Your task to perform on an android device: Open Wikipedia Image 0: 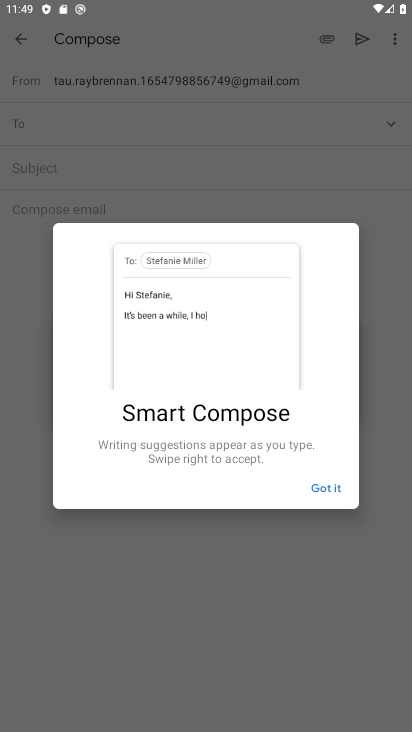
Step 0: press home button
Your task to perform on an android device: Open Wikipedia Image 1: 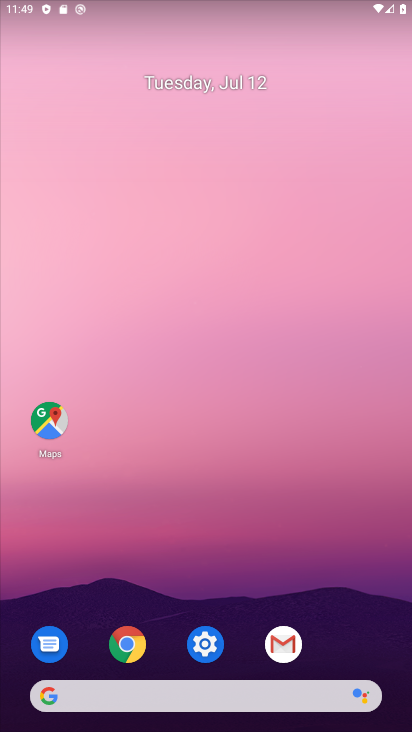
Step 1: click (109, 643)
Your task to perform on an android device: Open Wikipedia Image 2: 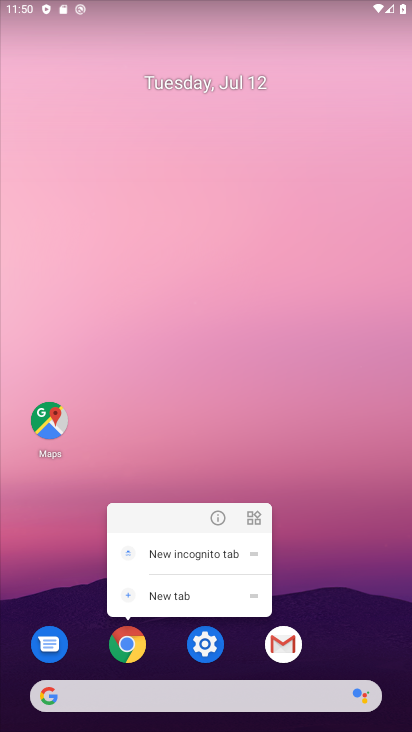
Step 2: click (119, 657)
Your task to perform on an android device: Open Wikipedia Image 3: 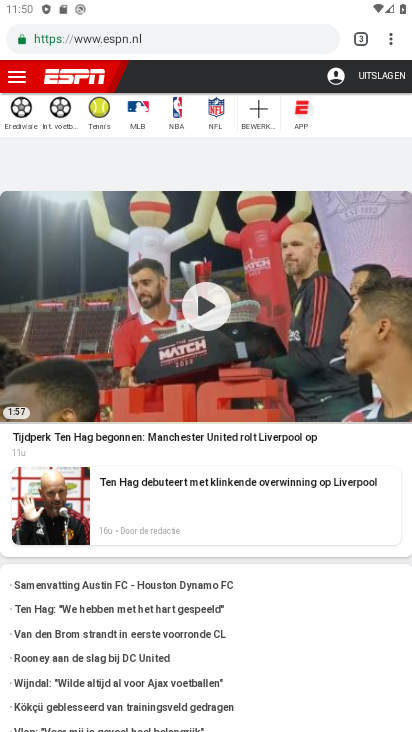
Step 3: click (392, 52)
Your task to perform on an android device: Open Wikipedia Image 4: 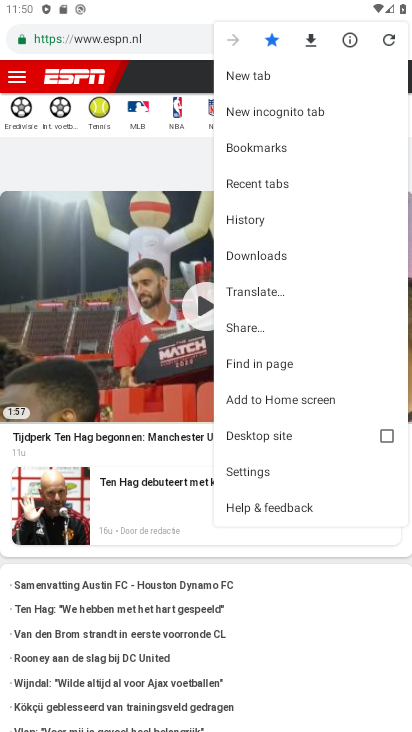
Step 4: click (263, 75)
Your task to perform on an android device: Open Wikipedia Image 5: 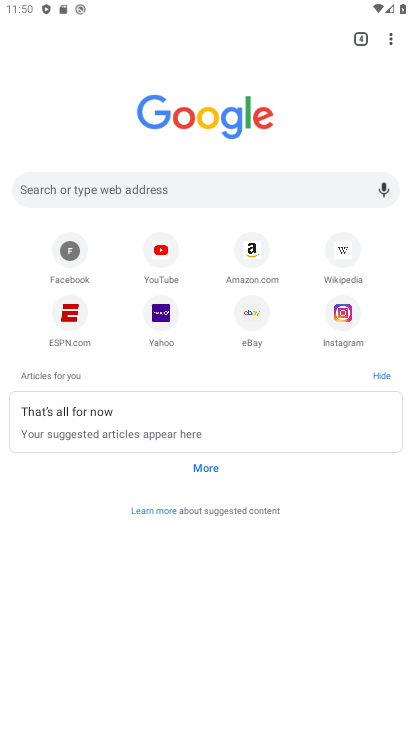
Step 5: click (334, 259)
Your task to perform on an android device: Open Wikipedia Image 6: 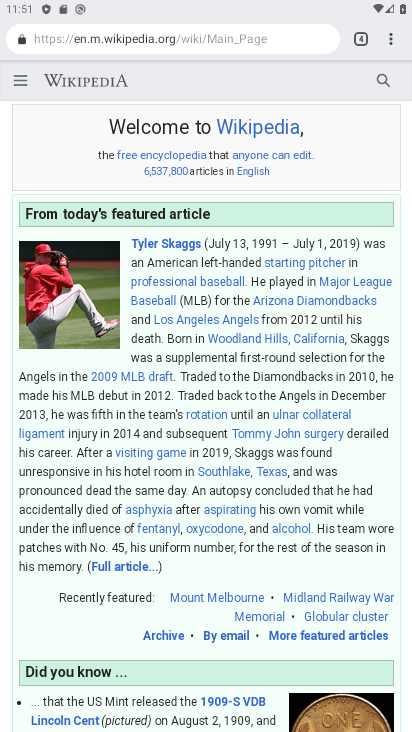
Step 6: task complete